Your task to perform on an android device: check android version Image 0: 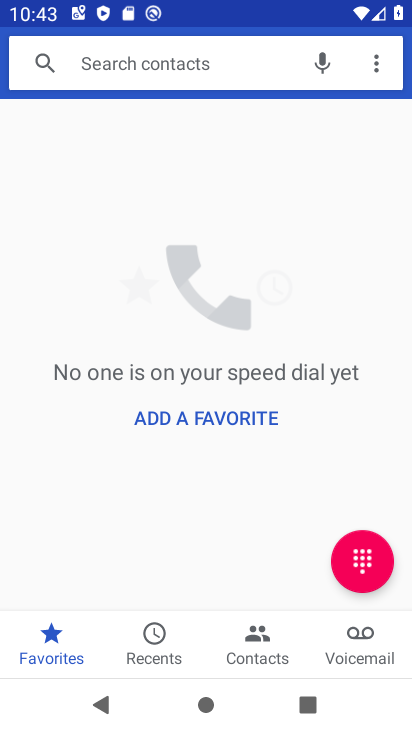
Step 0: press home button
Your task to perform on an android device: check android version Image 1: 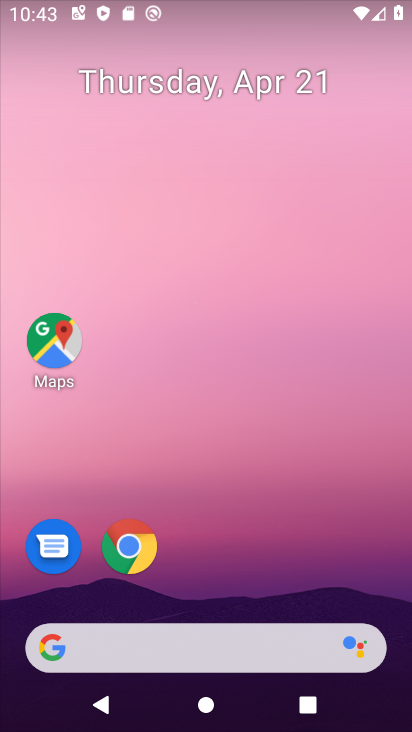
Step 1: drag from (277, 524) to (297, 88)
Your task to perform on an android device: check android version Image 2: 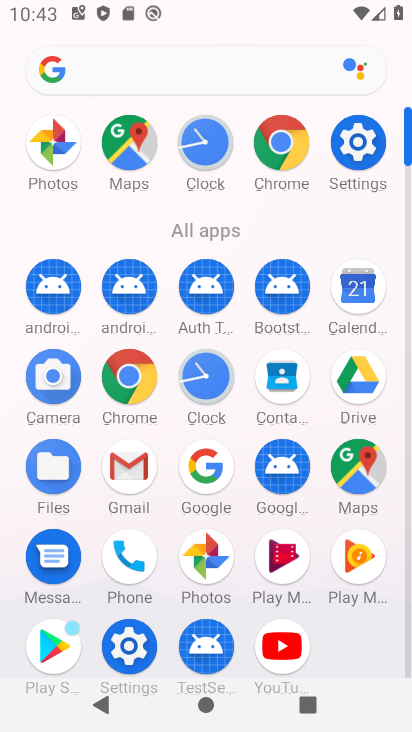
Step 2: click (117, 650)
Your task to perform on an android device: check android version Image 3: 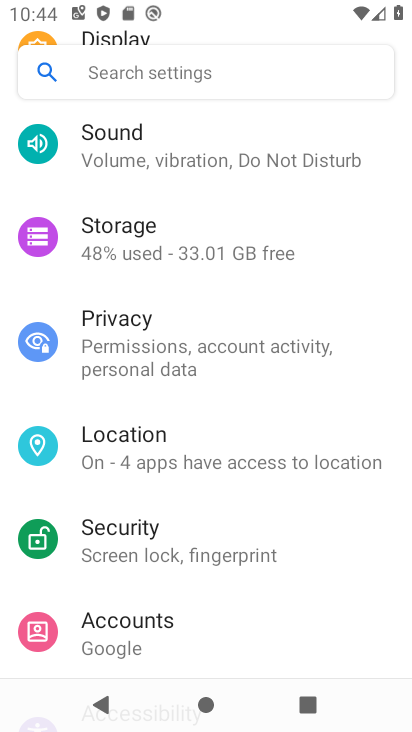
Step 3: drag from (189, 563) to (258, 138)
Your task to perform on an android device: check android version Image 4: 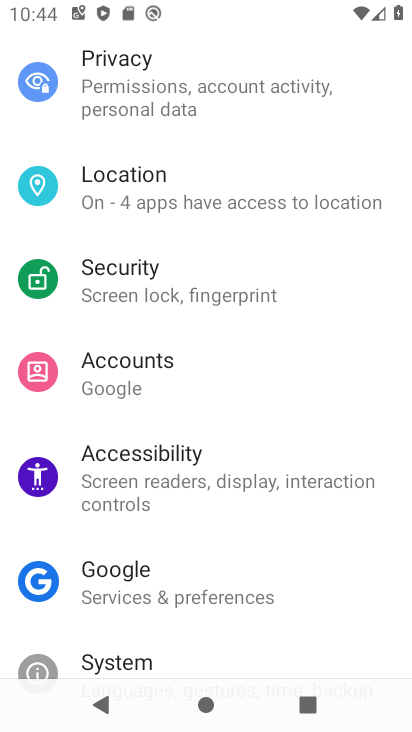
Step 4: drag from (201, 513) to (243, 151)
Your task to perform on an android device: check android version Image 5: 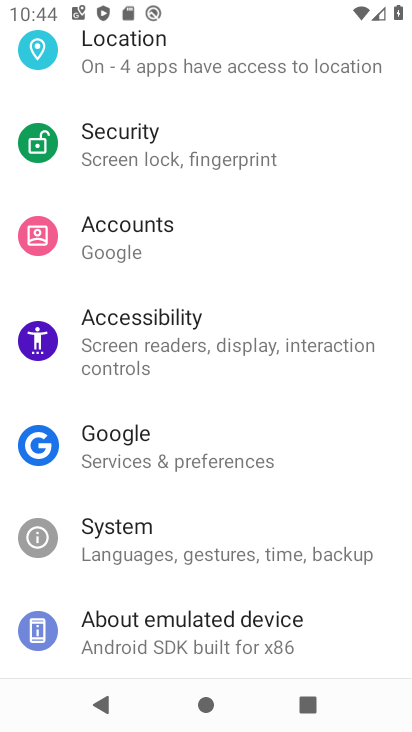
Step 5: click (149, 610)
Your task to perform on an android device: check android version Image 6: 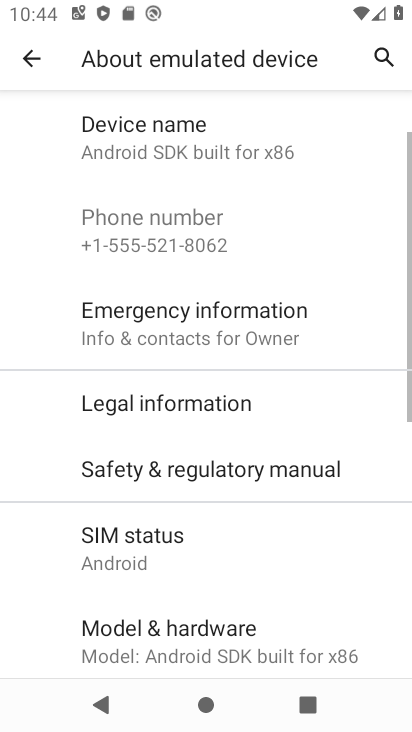
Step 6: drag from (240, 574) to (302, 173)
Your task to perform on an android device: check android version Image 7: 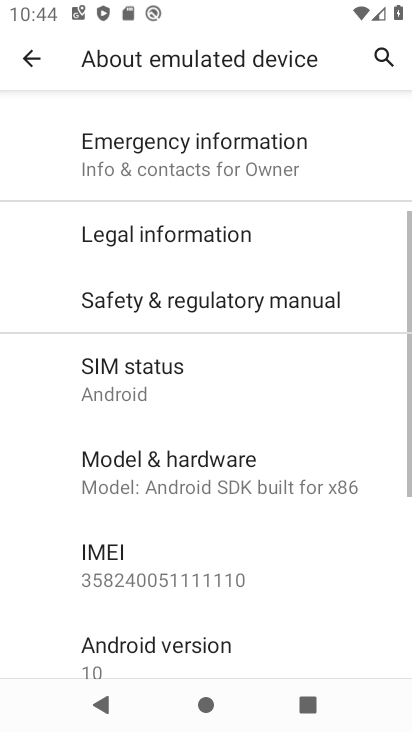
Step 7: drag from (230, 625) to (273, 199)
Your task to perform on an android device: check android version Image 8: 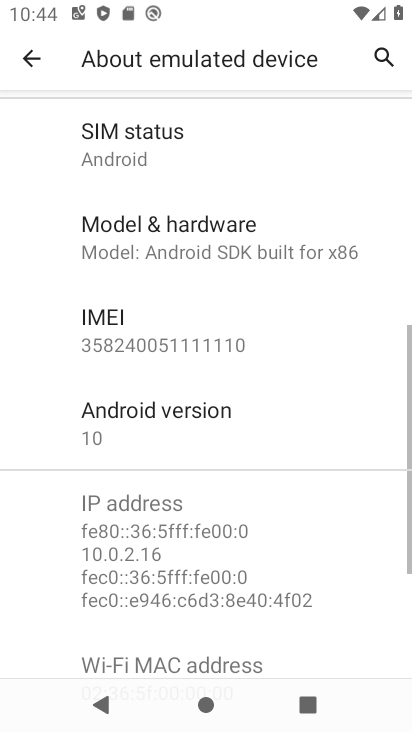
Step 8: drag from (172, 623) to (219, 353)
Your task to perform on an android device: check android version Image 9: 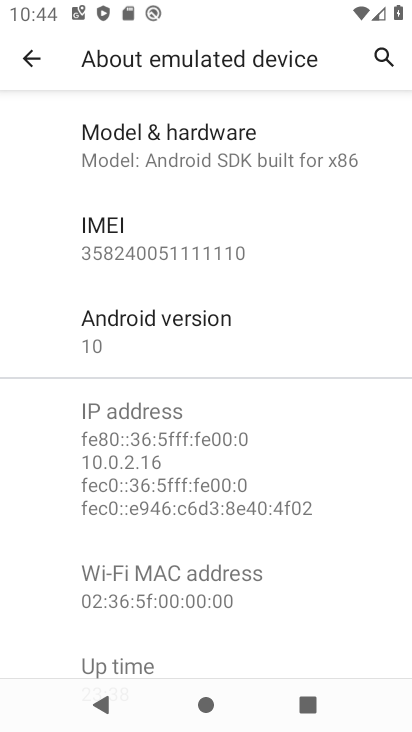
Step 9: click (171, 313)
Your task to perform on an android device: check android version Image 10: 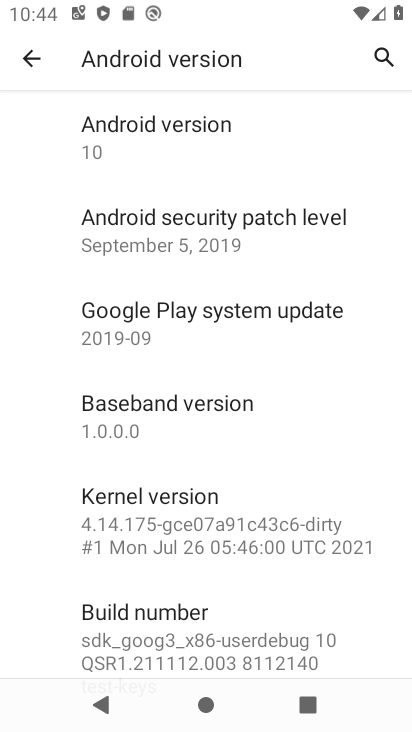
Step 10: task complete